Your task to perform on an android device: Go to Google maps Image 0: 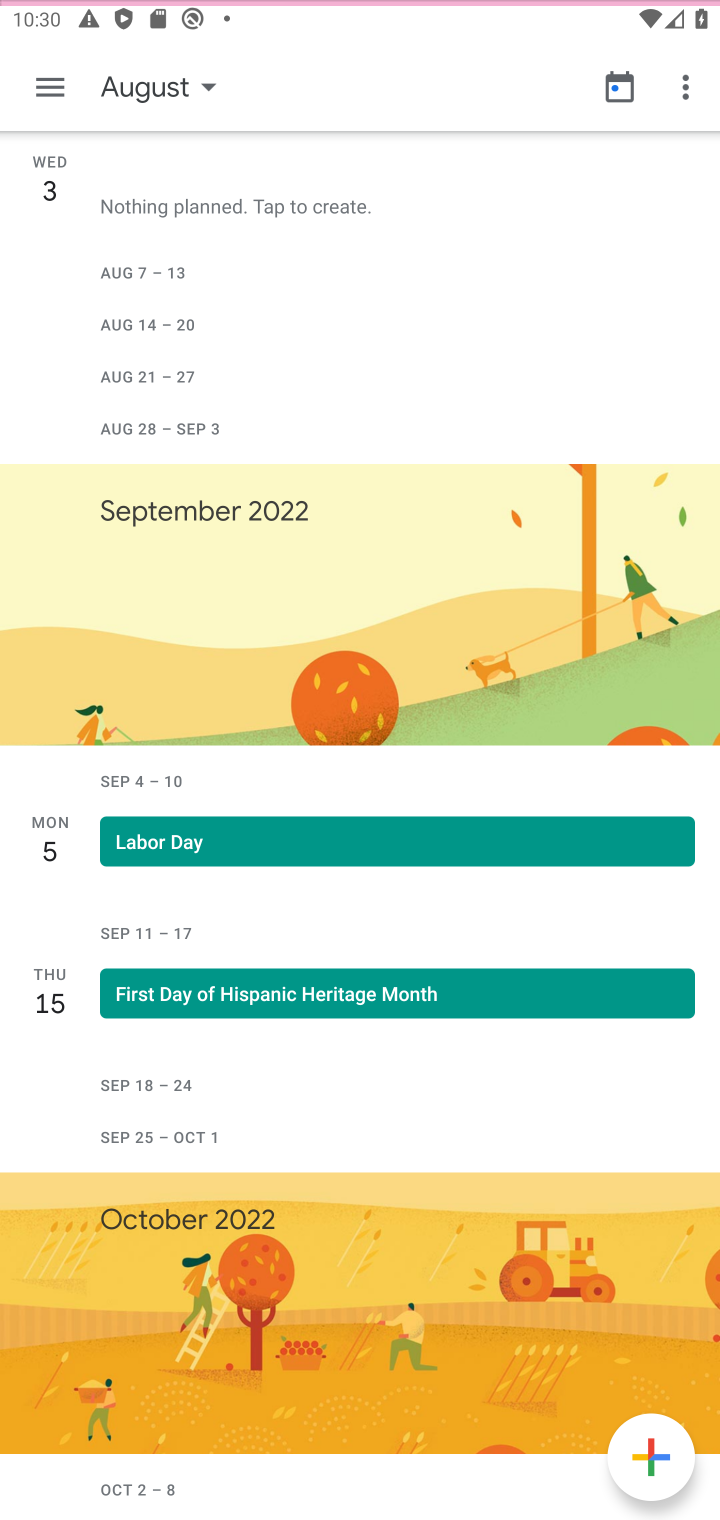
Step 0: press home button
Your task to perform on an android device: Go to Google maps Image 1: 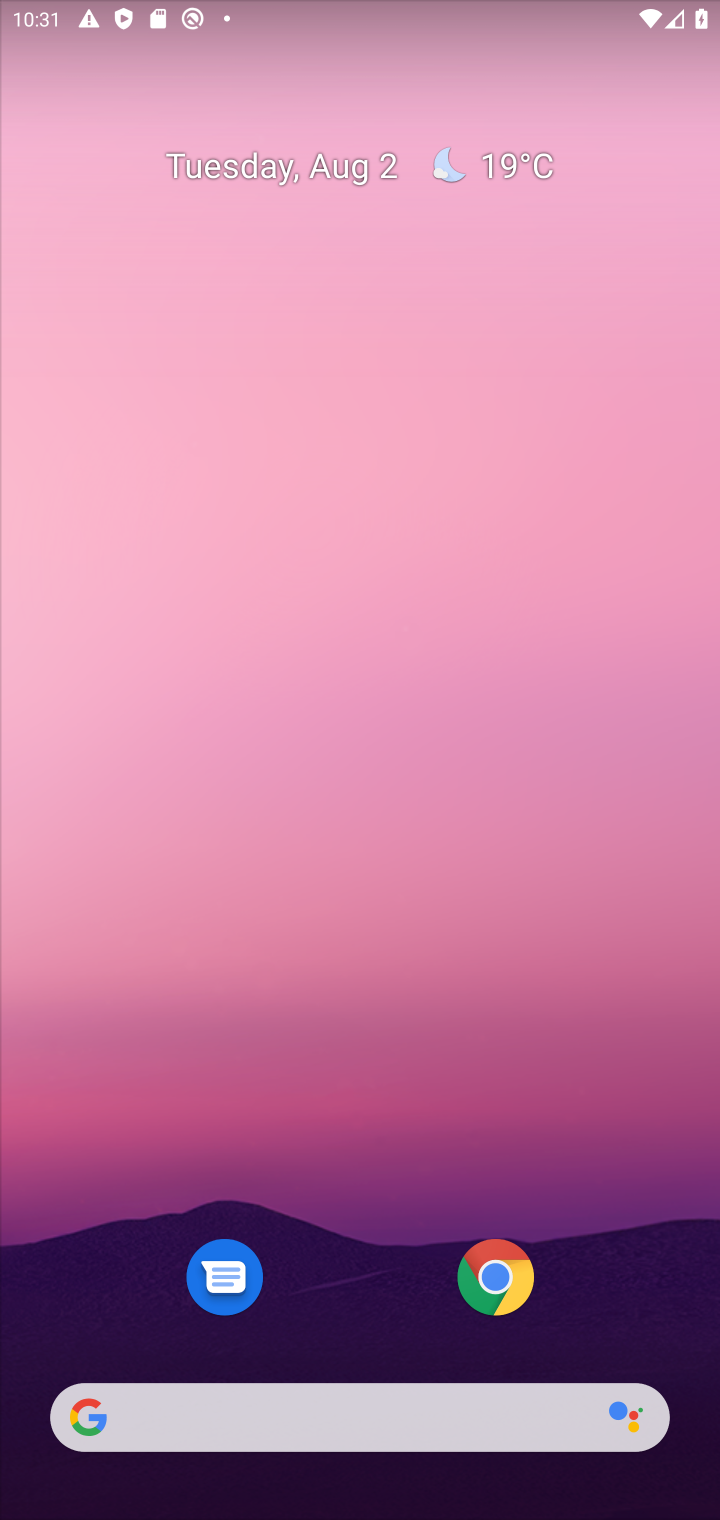
Step 1: drag from (327, 1084) to (355, 308)
Your task to perform on an android device: Go to Google maps Image 2: 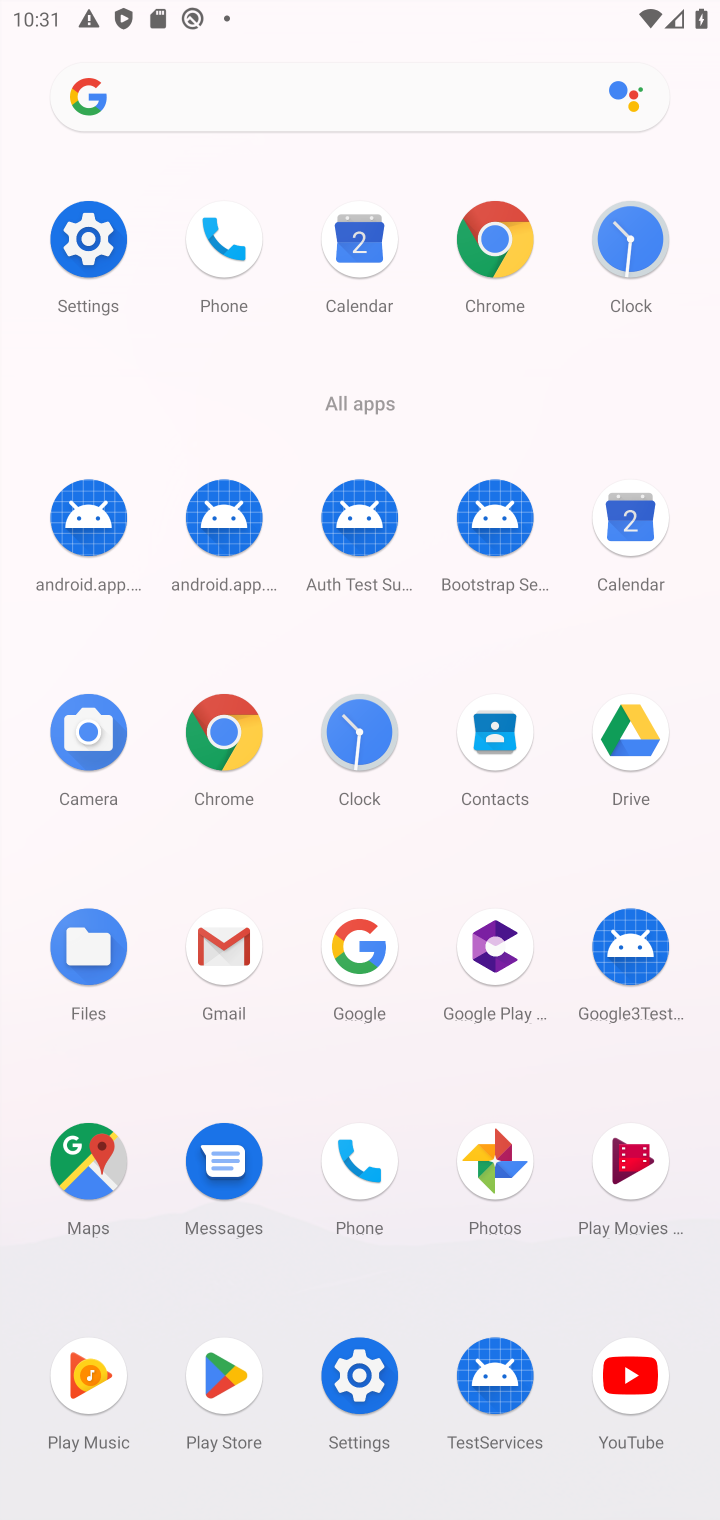
Step 2: click (81, 1154)
Your task to perform on an android device: Go to Google maps Image 3: 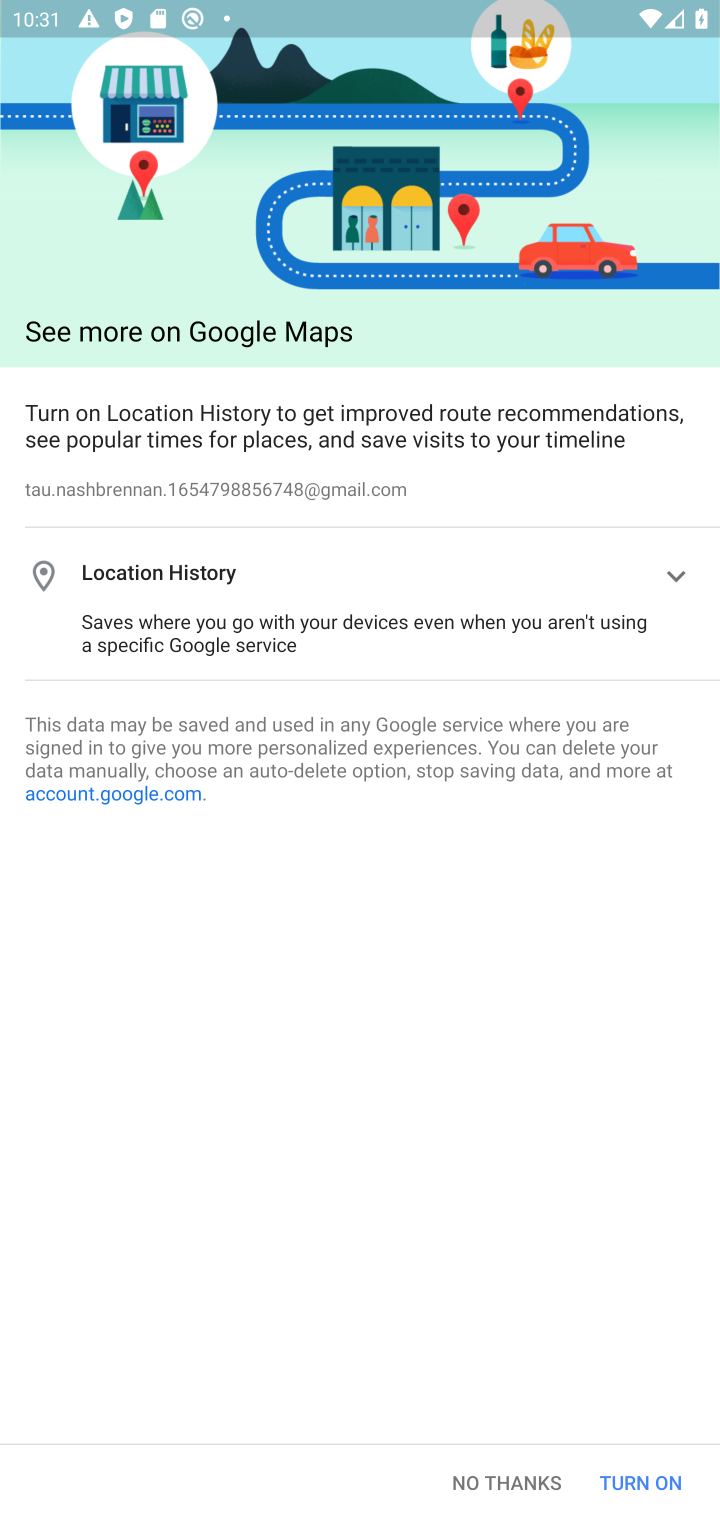
Step 3: click (632, 1478)
Your task to perform on an android device: Go to Google maps Image 4: 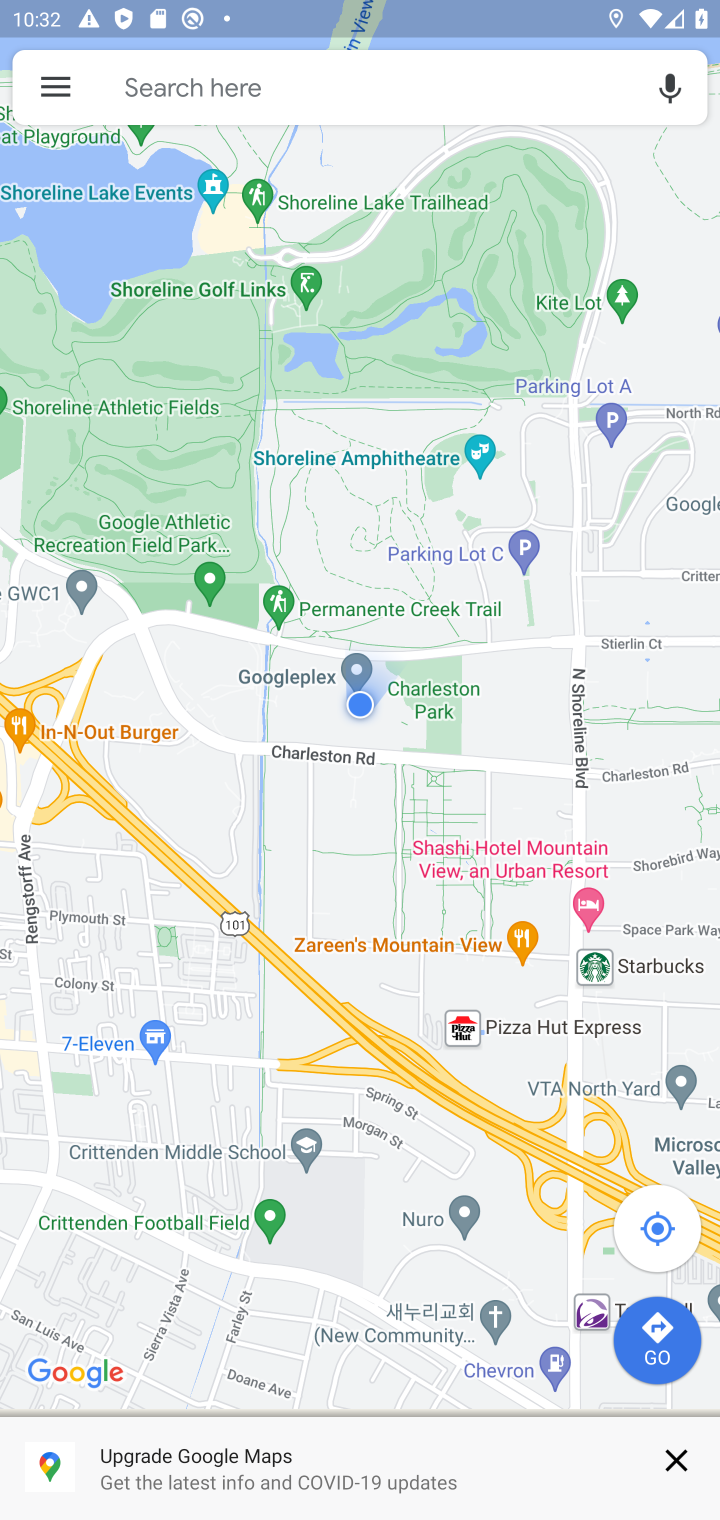
Step 4: task complete